Your task to perform on an android device: check out phone information Image 0: 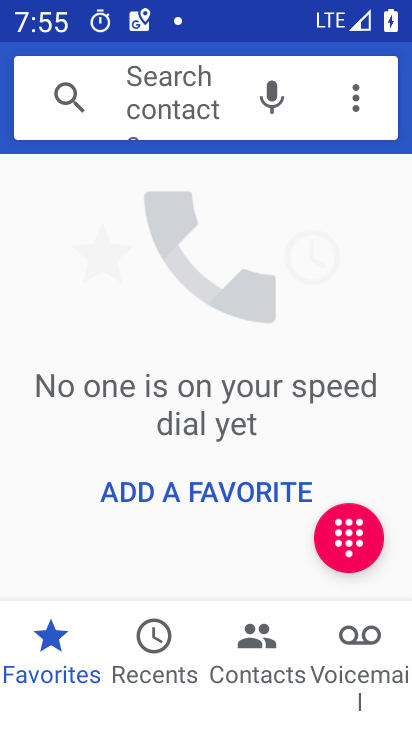
Step 0: press home button
Your task to perform on an android device: check out phone information Image 1: 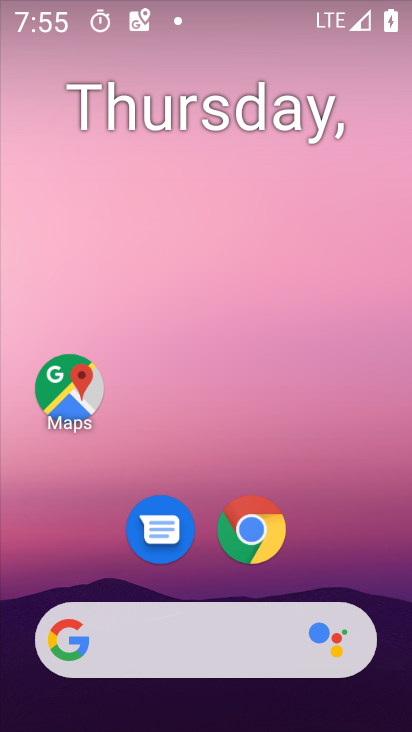
Step 1: drag from (376, 573) to (356, 163)
Your task to perform on an android device: check out phone information Image 2: 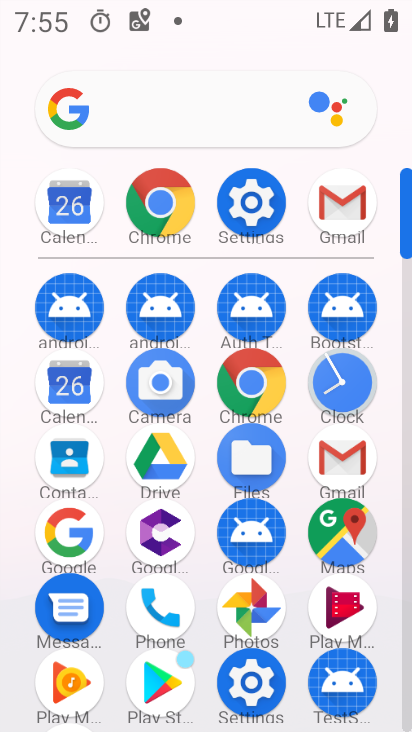
Step 2: click (181, 602)
Your task to perform on an android device: check out phone information Image 3: 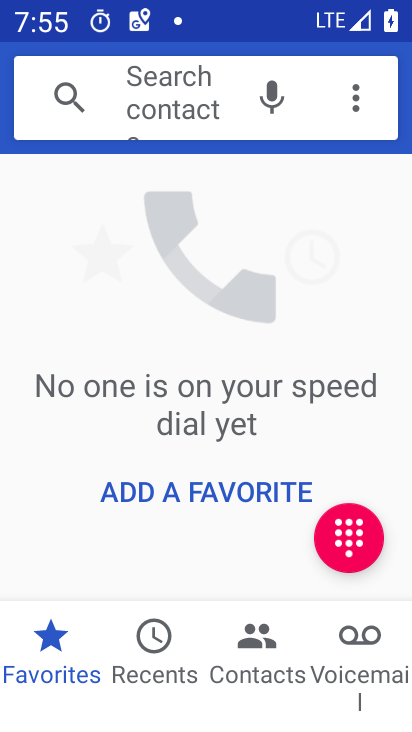
Step 3: click (154, 662)
Your task to perform on an android device: check out phone information Image 4: 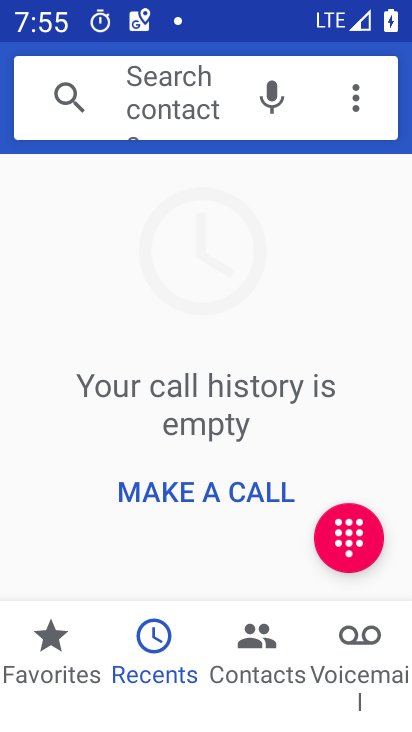
Step 4: task complete